Your task to perform on an android device: Go to calendar. Show me events next week Image 0: 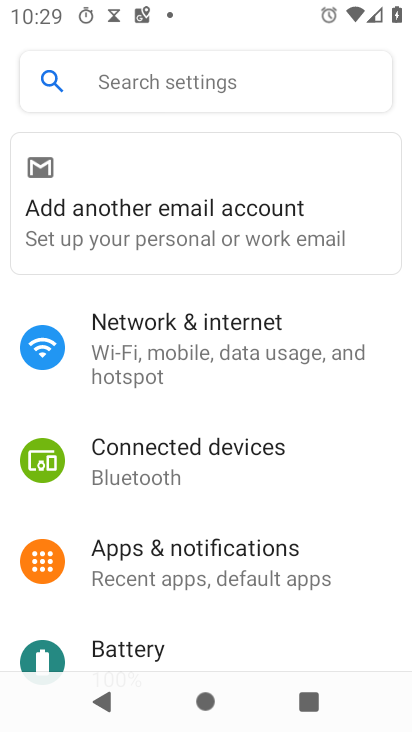
Step 0: press home button
Your task to perform on an android device: Go to calendar. Show me events next week Image 1: 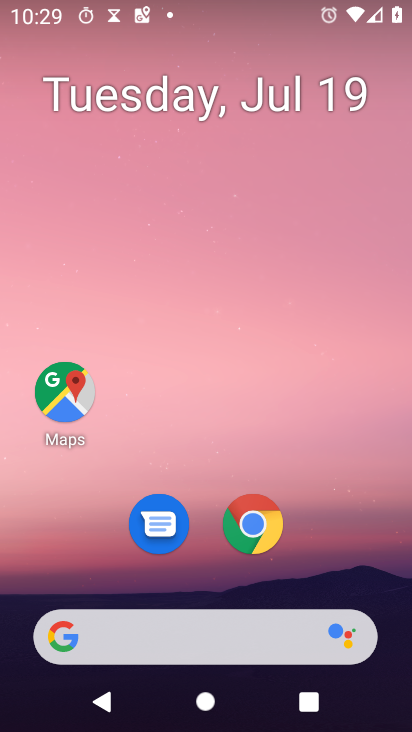
Step 1: drag from (168, 640) to (291, 159)
Your task to perform on an android device: Go to calendar. Show me events next week Image 2: 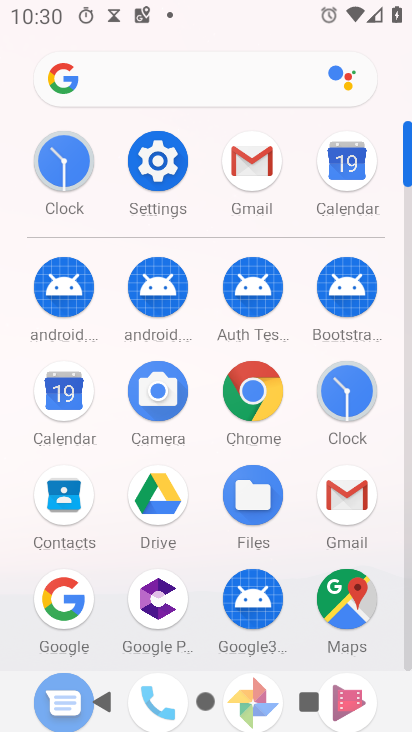
Step 2: click (58, 405)
Your task to perform on an android device: Go to calendar. Show me events next week Image 3: 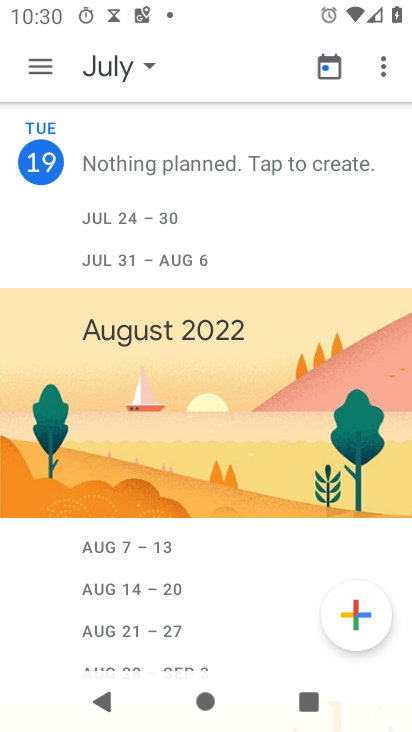
Step 3: click (113, 71)
Your task to perform on an android device: Go to calendar. Show me events next week Image 4: 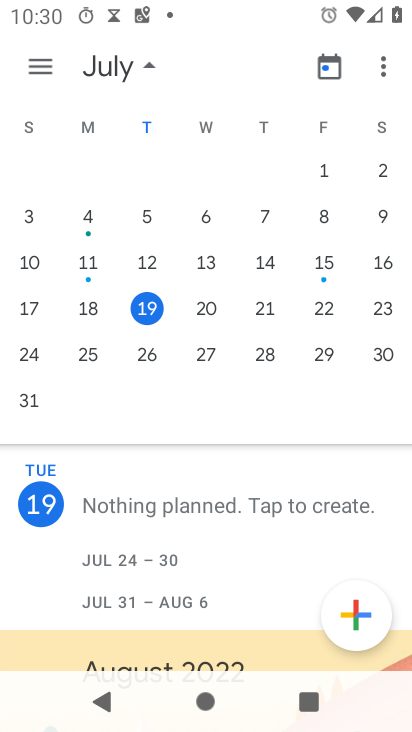
Step 4: click (28, 350)
Your task to perform on an android device: Go to calendar. Show me events next week Image 5: 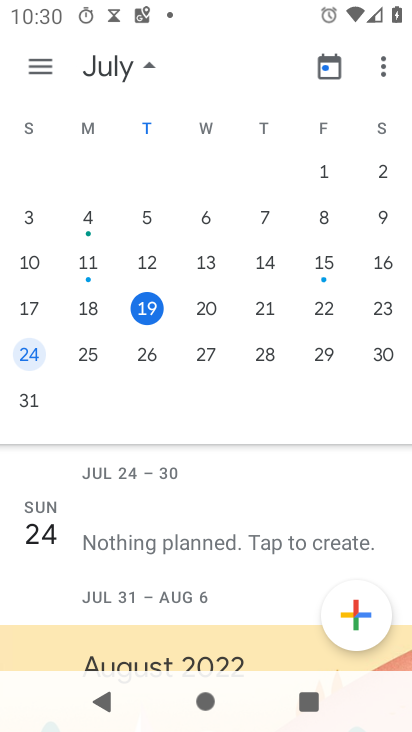
Step 5: click (47, 67)
Your task to perform on an android device: Go to calendar. Show me events next week Image 6: 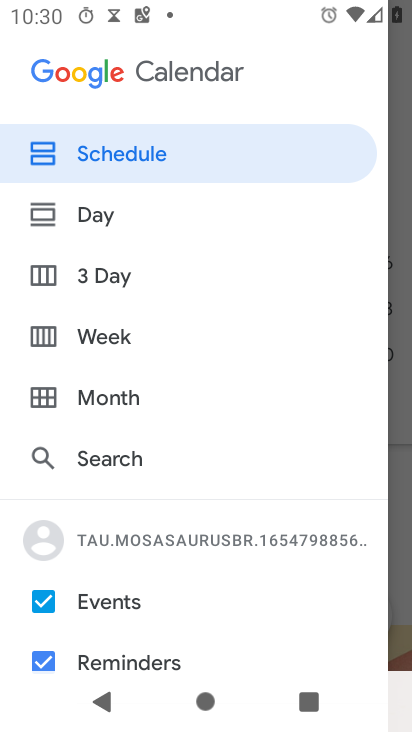
Step 6: click (117, 340)
Your task to perform on an android device: Go to calendar. Show me events next week Image 7: 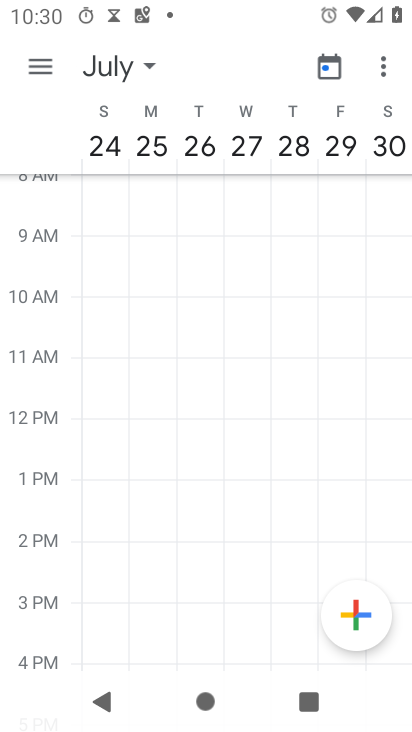
Step 7: click (41, 65)
Your task to perform on an android device: Go to calendar. Show me events next week Image 8: 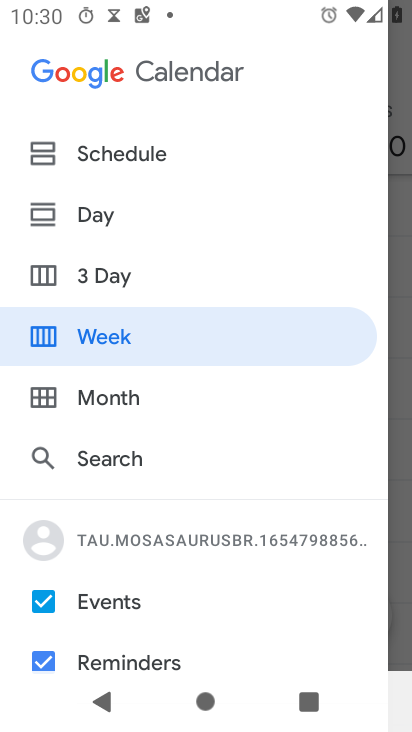
Step 8: click (116, 153)
Your task to perform on an android device: Go to calendar. Show me events next week Image 9: 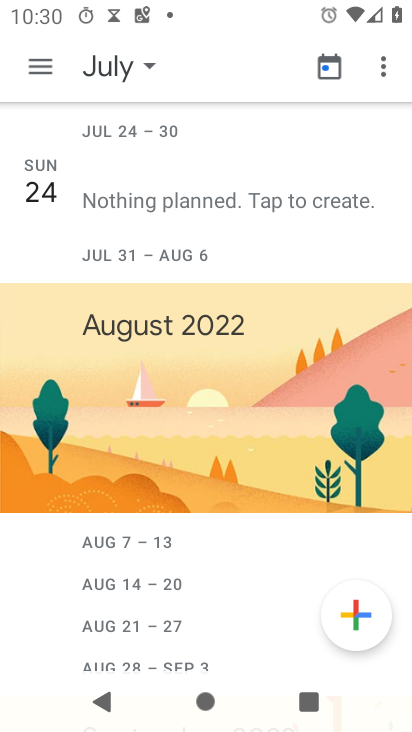
Step 9: task complete